Your task to perform on an android device: Go to location settings Image 0: 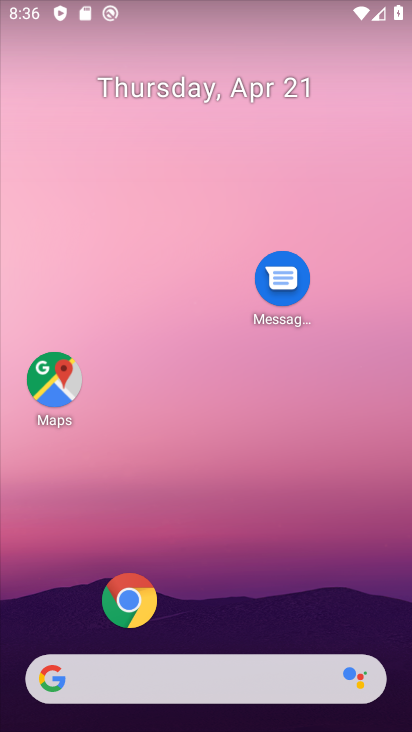
Step 0: drag from (47, 479) to (229, 189)
Your task to perform on an android device: Go to location settings Image 1: 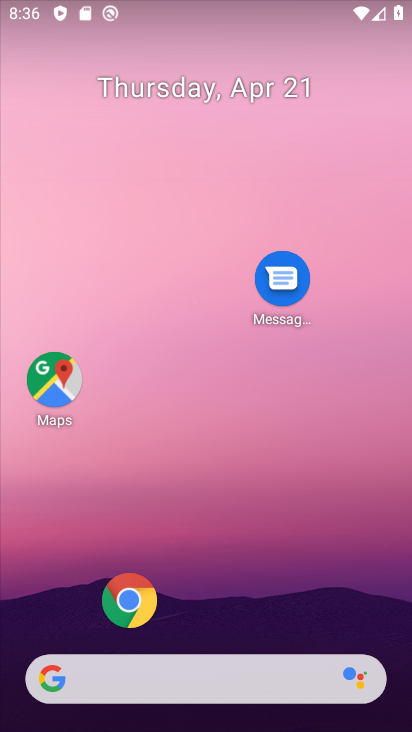
Step 1: drag from (19, 497) to (185, 162)
Your task to perform on an android device: Go to location settings Image 2: 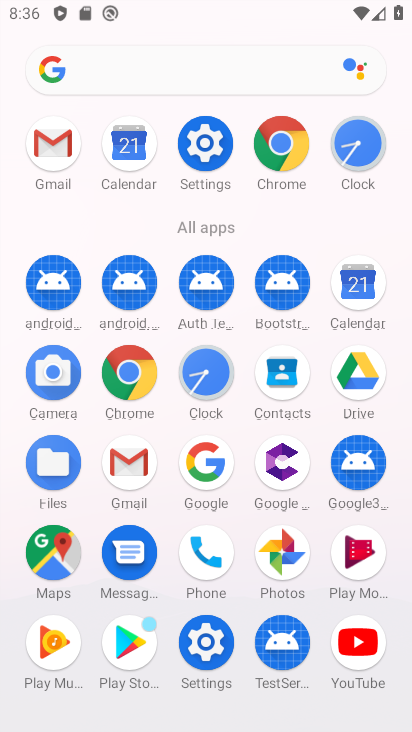
Step 2: click (201, 142)
Your task to perform on an android device: Go to location settings Image 3: 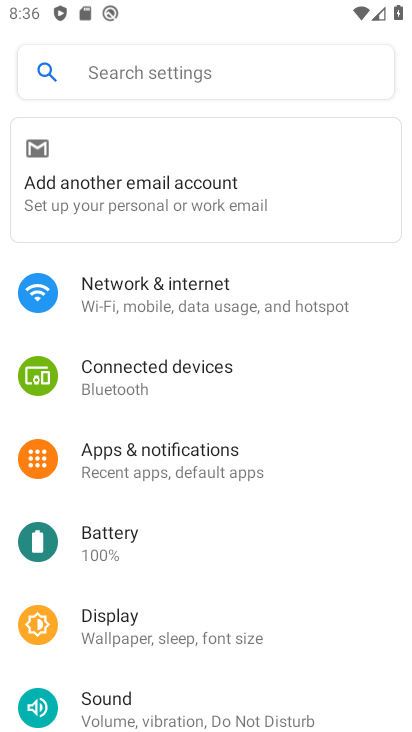
Step 3: drag from (125, 662) to (231, 276)
Your task to perform on an android device: Go to location settings Image 4: 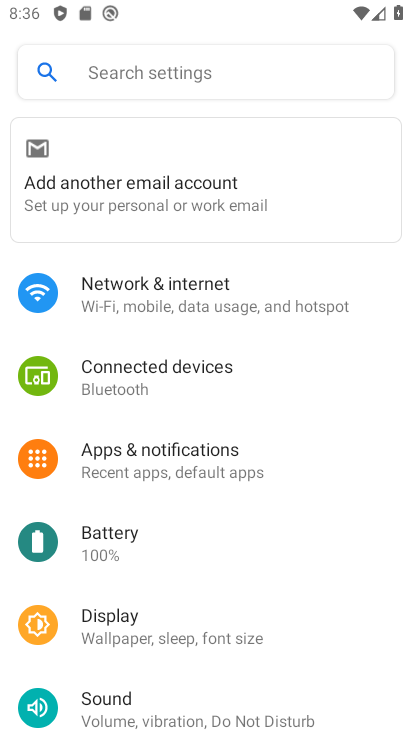
Step 4: drag from (140, 716) to (361, 306)
Your task to perform on an android device: Go to location settings Image 5: 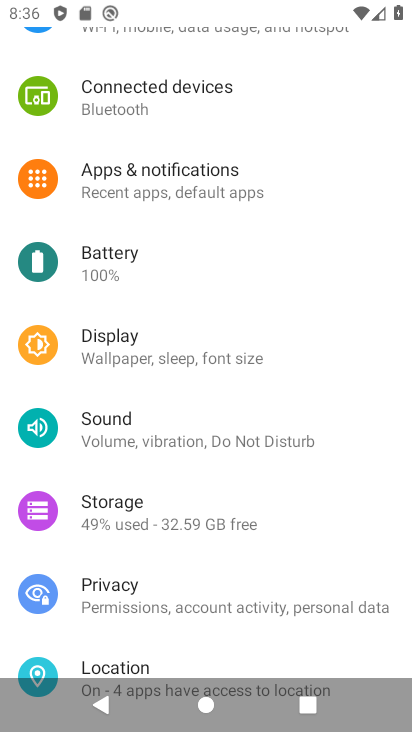
Step 5: click (148, 672)
Your task to perform on an android device: Go to location settings Image 6: 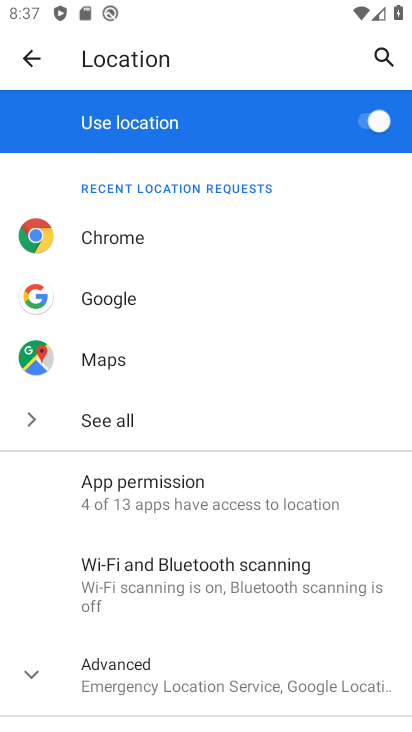
Step 6: task complete